Your task to perform on an android device: toggle wifi Image 0: 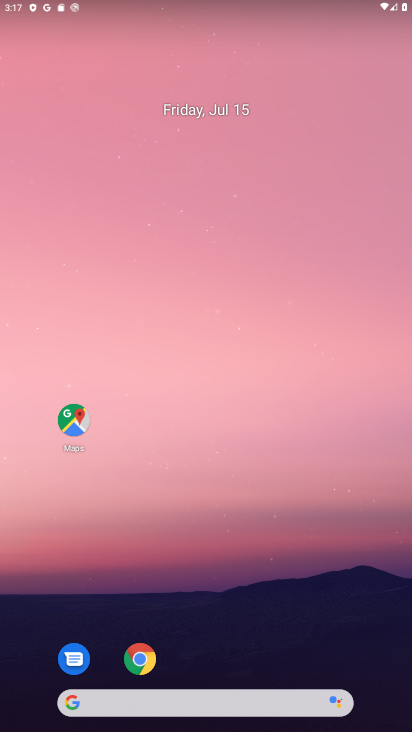
Step 0: click (241, 594)
Your task to perform on an android device: toggle wifi Image 1: 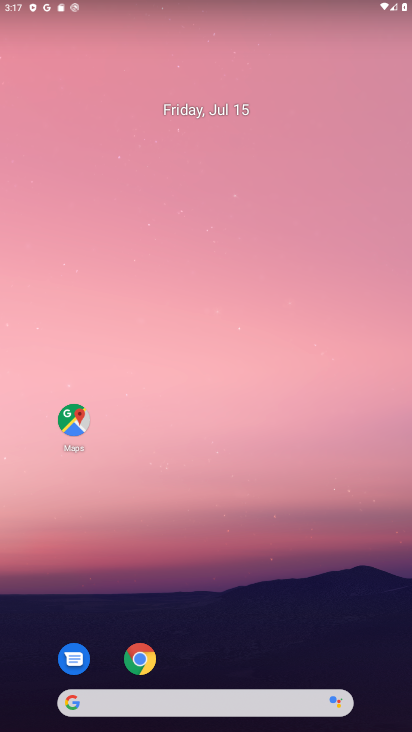
Step 1: drag from (241, 594) to (128, 154)
Your task to perform on an android device: toggle wifi Image 2: 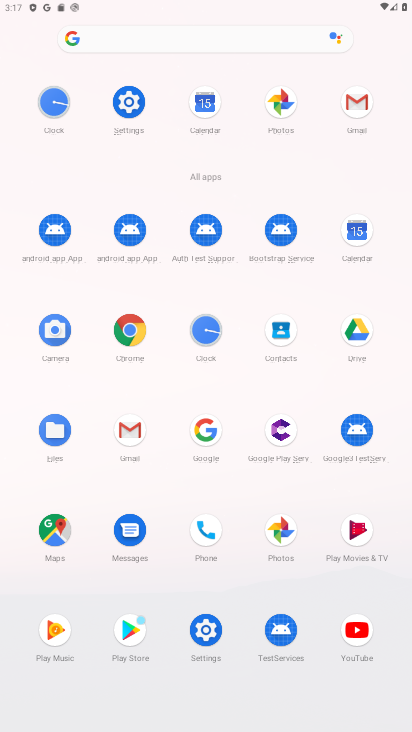
Step 2: click (137, 98)
Your task to perform on an android device: toggle wifi Image 3: 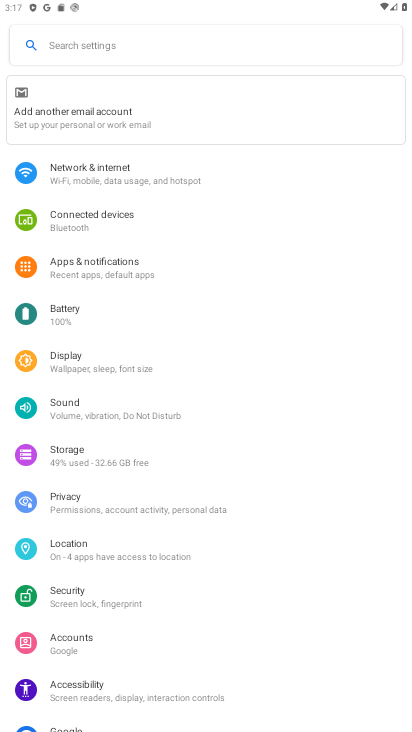
Step 3: click (89, 170)
Your task to perform on an android device: toggle wifi Image 4: 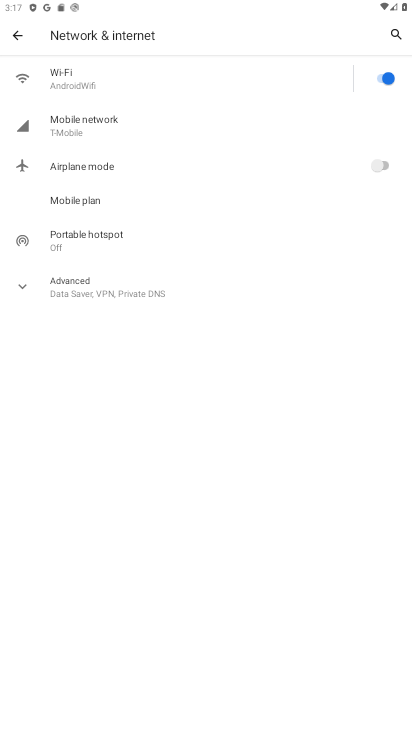
Step 4: click (381, 78)
Your task to perform on an android device: toggle wifi Image 5: 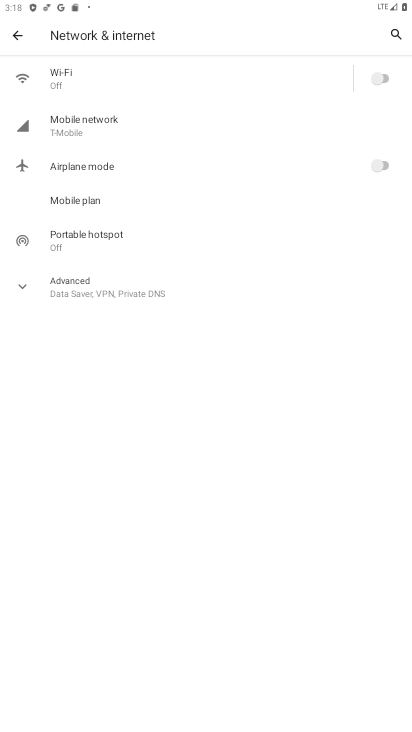
Step 5: task complete